Your task to perform on an android device: Open Chrome and go to settings Image 0: 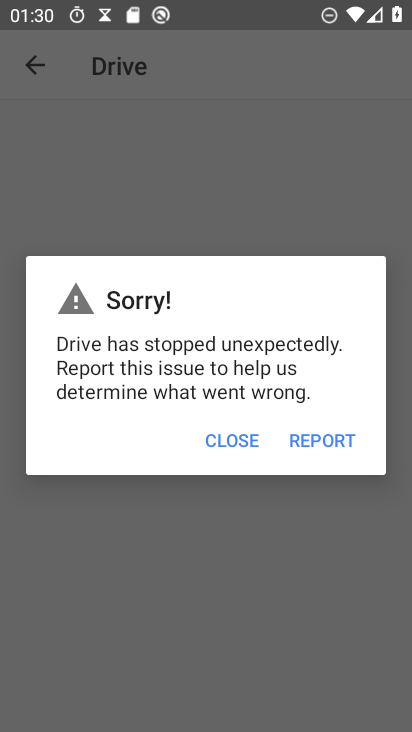
Step 0: press home button
Your task to perform on an android device: Open Chrome and go to settings Image 1: 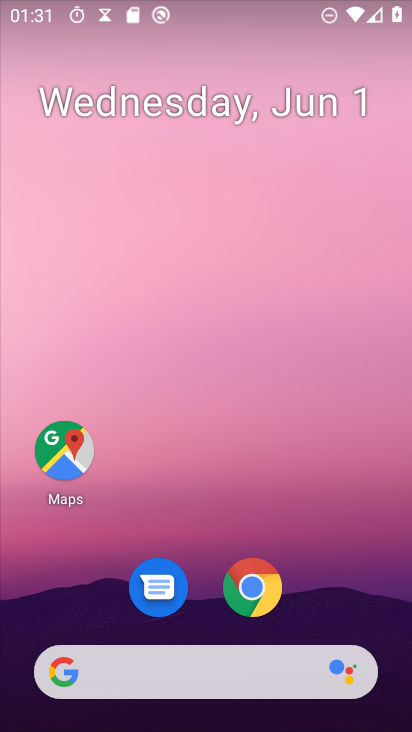
Step 1: click (246, 588)
Your task to perform on an android device: Open Chrome and go to settings Image 2: 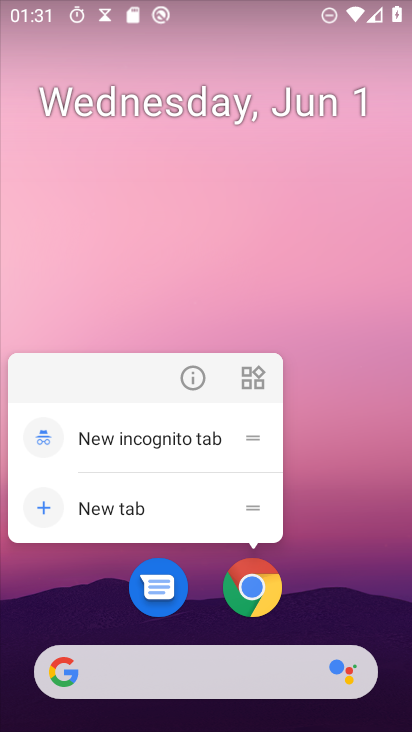
Step 2: click (245, 587)
Your task to perform on an android device: Open Chrome and go to settings Image 3: 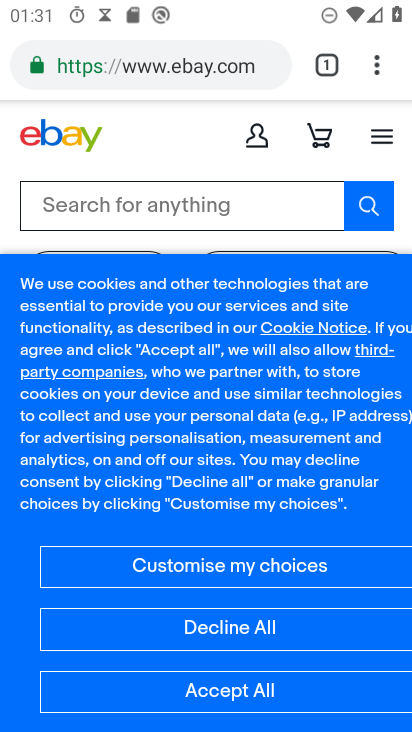
Step 3: click (377, 57)
Your task to perform on an android device: Open Chrome and go to settings Image 4: 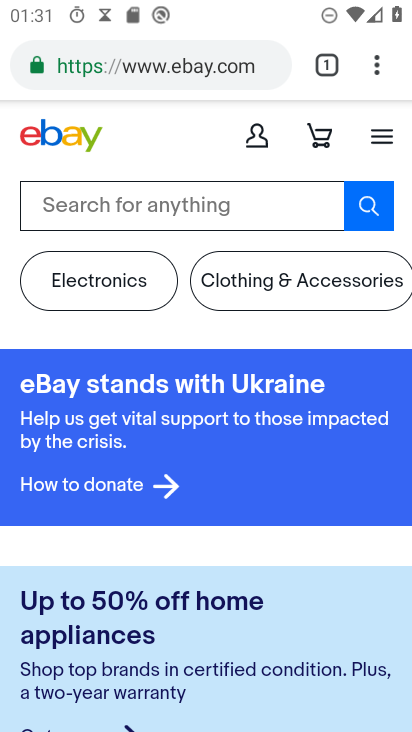
Step 4: click (392, 64)
Your task to perform on an android device: Open Chrome and go to settings Image 5: 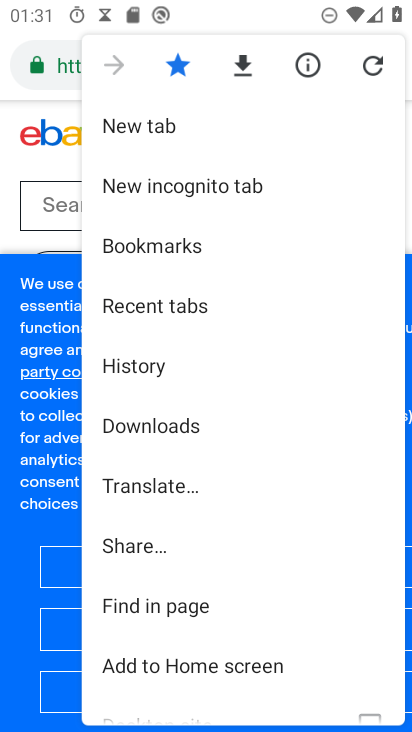
Step 5: drag from (281, 586) to (290, 217)
Your task to perform on an android device: Open Chrome and go to settings Image 6: 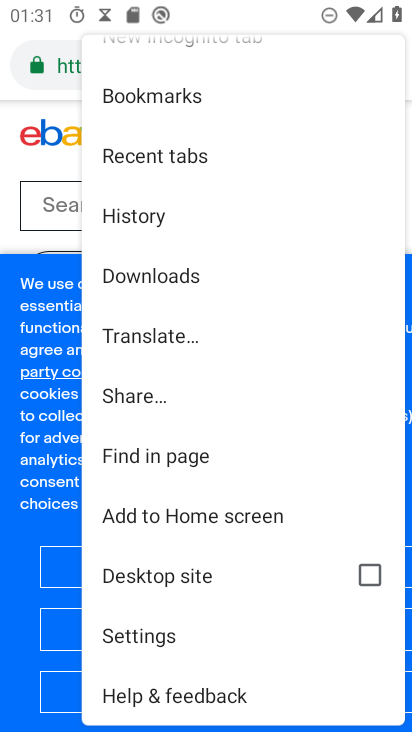
Step 6: click (151, 641)
Your task to perform on an android device: Open Chrome and go to settings Image 7: 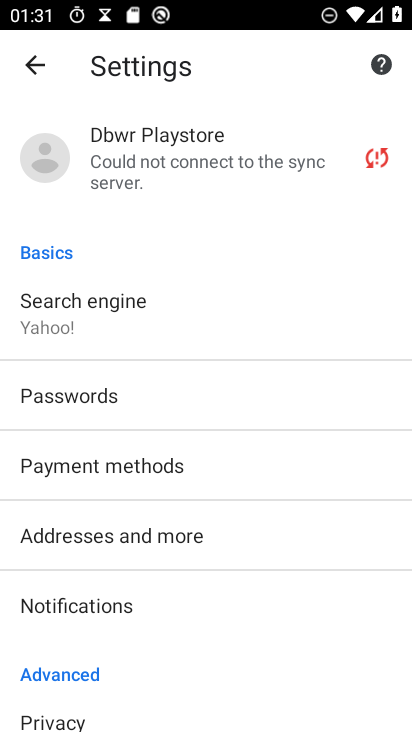
Step 7: task complete